Your task to perform on an android device: Open the Play Movies app and select the watchlist tab. Image 0: 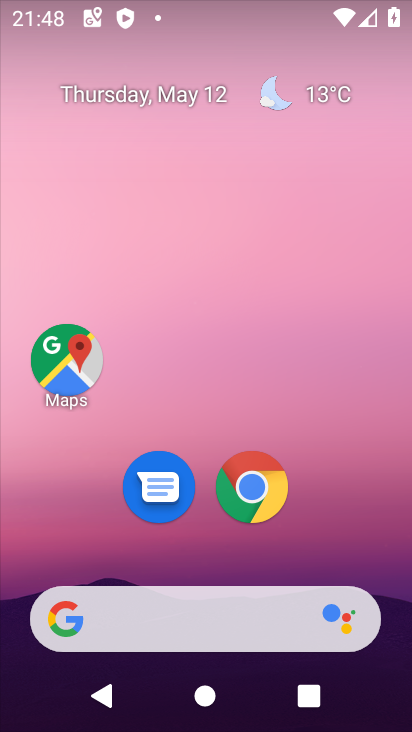
Step 0: drag from (195, 543) to (261, 173)
Your task to perform on an android device: Open the Play Movies app and select the watchlist tab. Image 1: 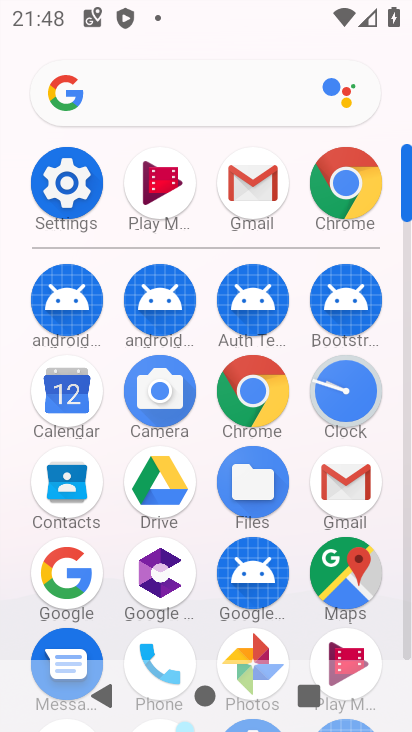
Step 1: click (185, 214)
Your task to perform on an android device: Open the Play Movies app and select the watchlist tab. Image 2: 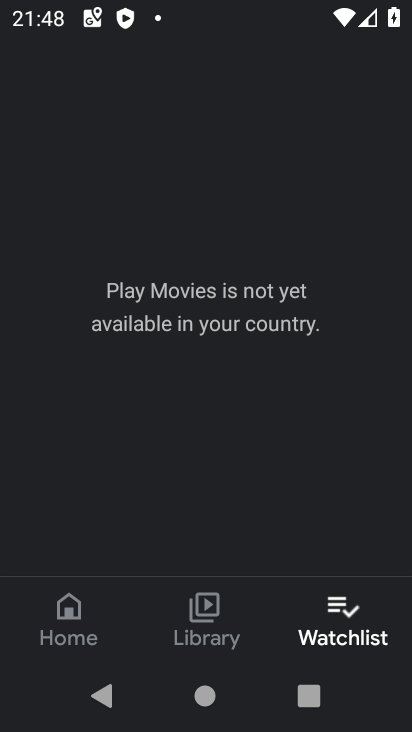
Step 2: task complete